Your task to perform on an android device: Open privacy settings Image 0: 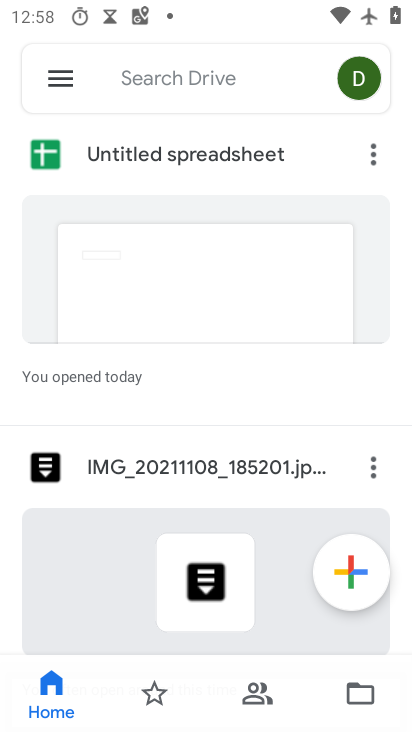
Step 0: press home button
Your task to perform on an android device: Open privacy settings Image 1: 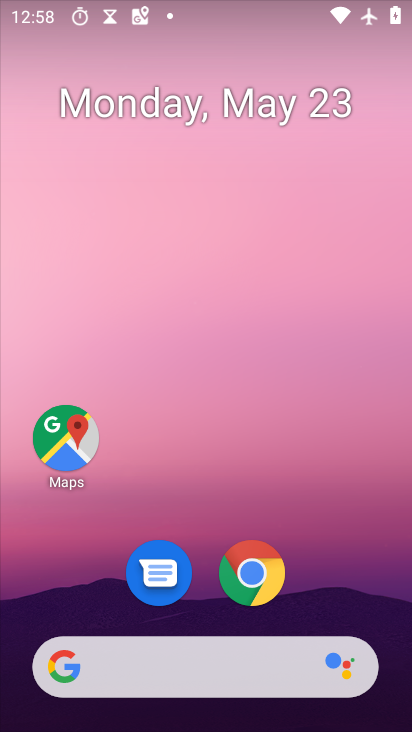
Step 1: drag from (178, 668) to (327, 111)
Your task to perform on an android device: Open privacy settings Image 2: 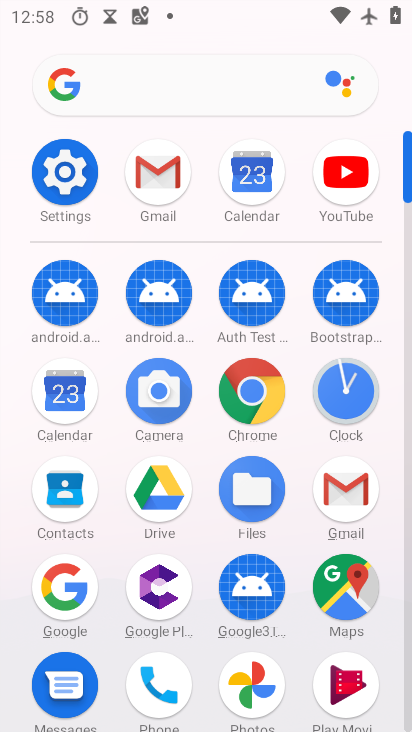
Step 2: click (68, 178)
Your task to perform on an android device: Open privacy settings Image 3: 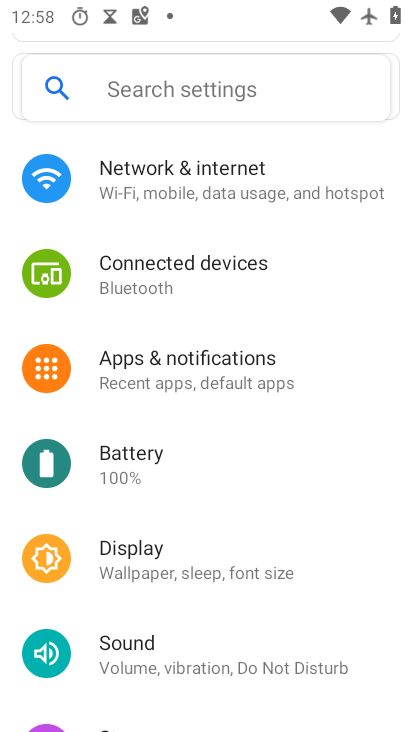
Step 3: drag from (213, 639) to (306, 284)
Your task to perform on an android device: Open privacy settings Image 4: 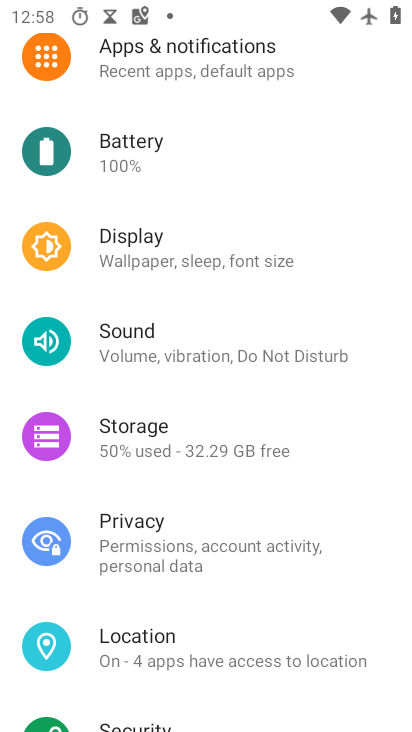
Step 4: click (164, 540)
Your task to perform on an android device: Open privacy settings Image 5: 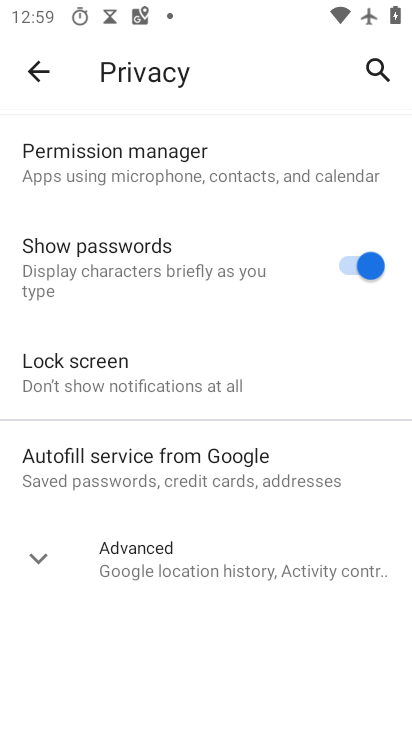
Step 5: task complete